Your task to perform on an android device: Is it going to rain today? Image 0: 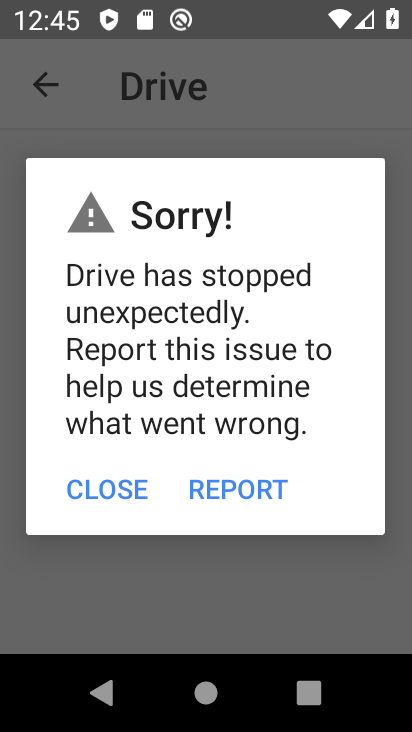
Step 0: press home button
Your task to perform on an android device: Is it going to rain today? Image 1: 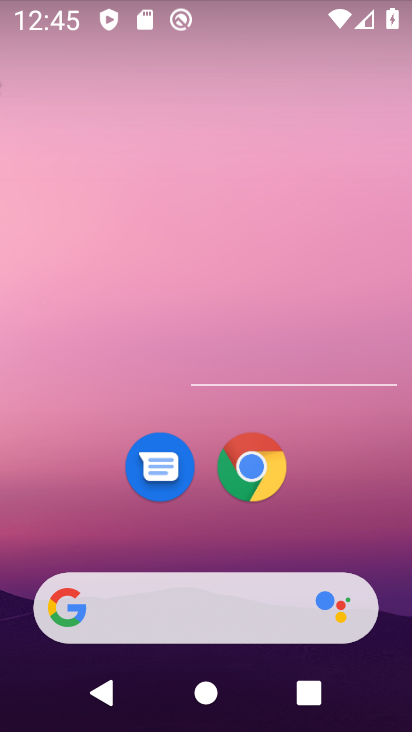
Step 1: press home button
Your task to perform on an android device: Is it going to rain today? Image 2: 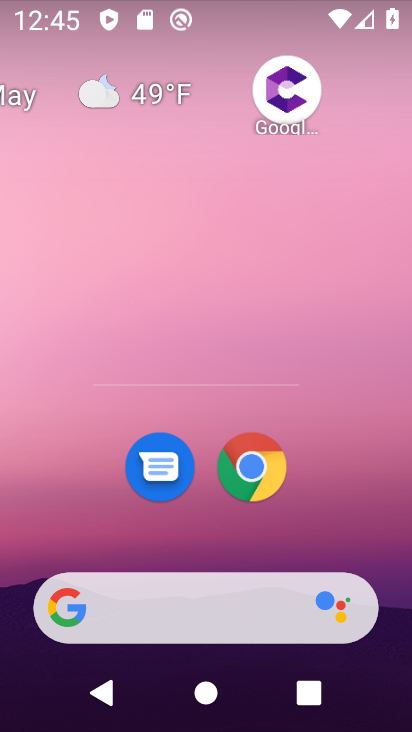
Step 2: drag from (320, 479) to (353, 77)
Your task to perform on an android device: Is it going to rain today? Image 3: 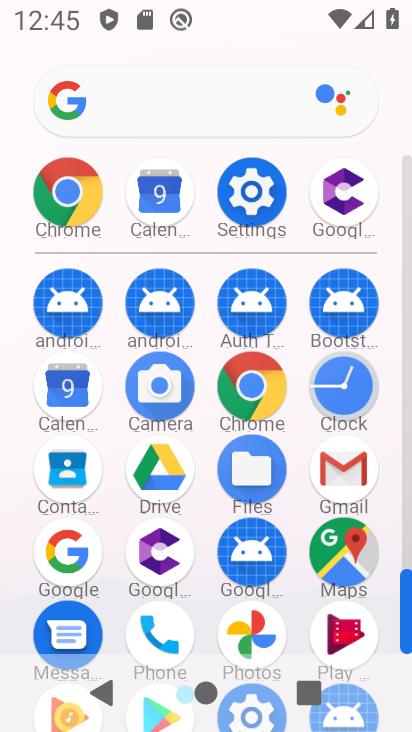
Step 3: click (258, 376)
Your task to perform on an android device: Is it going to rain today? Image 4: 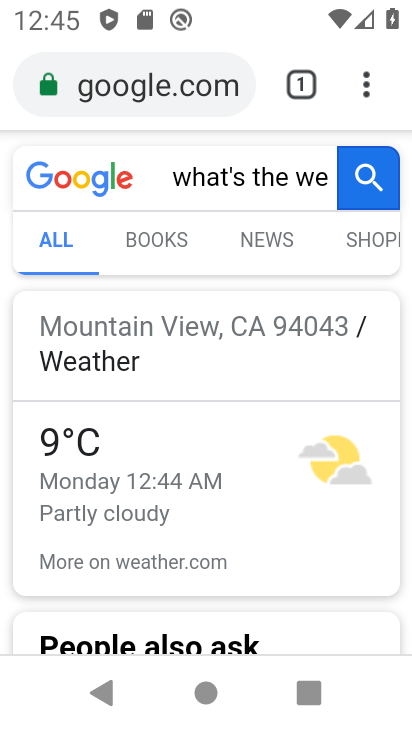
Step 4: click (185, 82)
Your task to perform on an android device: Is it going to rain today? Image 5: 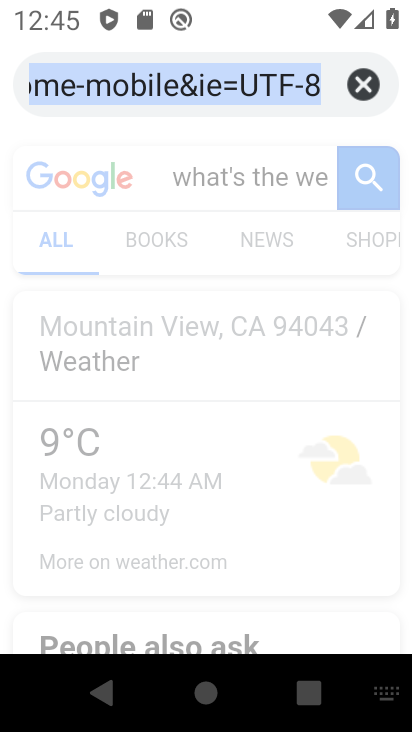
Step 5: click (370, 84)
Your task to perform on an android device: Is it going to rain today? Image 6: 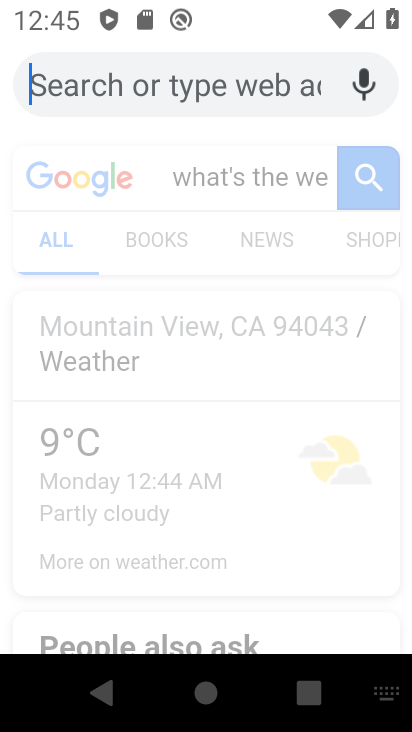
Step 6: click (224, 84)
Your task to perform on an android device: Is it going to rain today? Image 7: 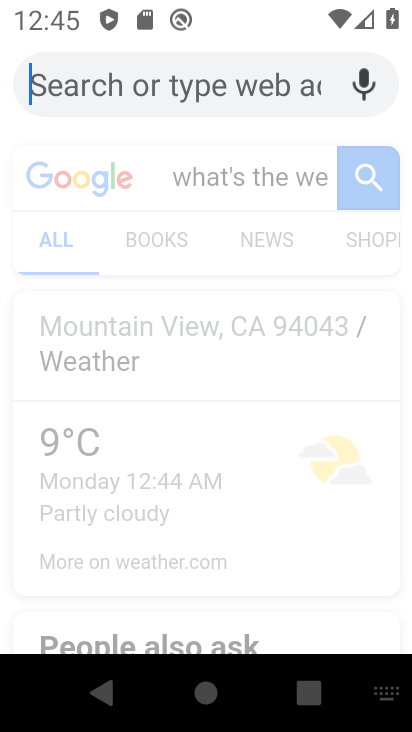
Step 7: type "is it going to rain today"
Your task to perform on an android device: Is it going to rain today? Image 8: 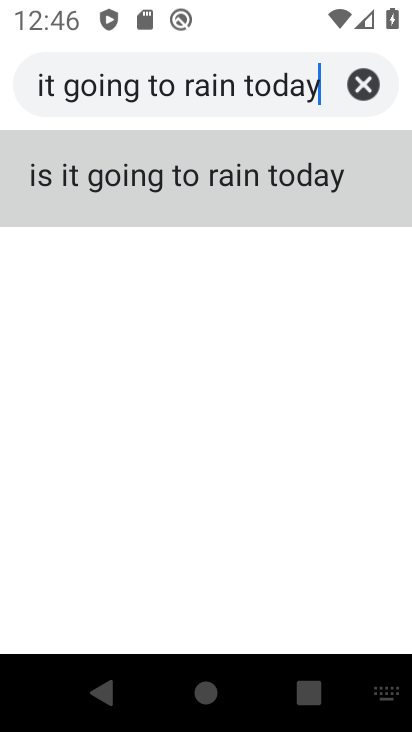
Step 8: click (297, 187)
Your task to perform on an android device: Is it going to rain today? Image 9: 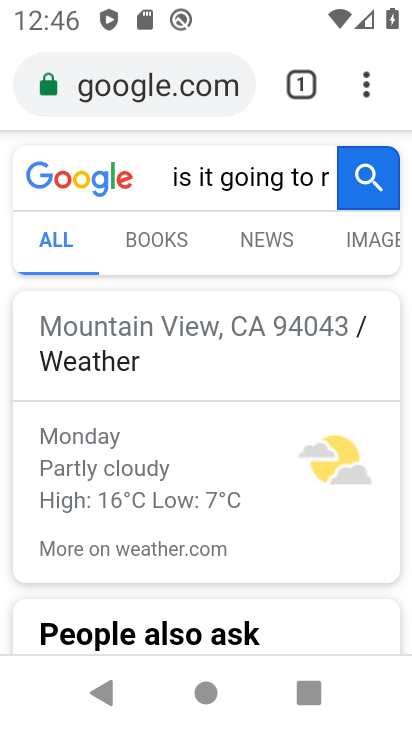
Step 9: task complete